Your task to perform on an android device: open the mobile data screen to see how much data has been used Image 0: 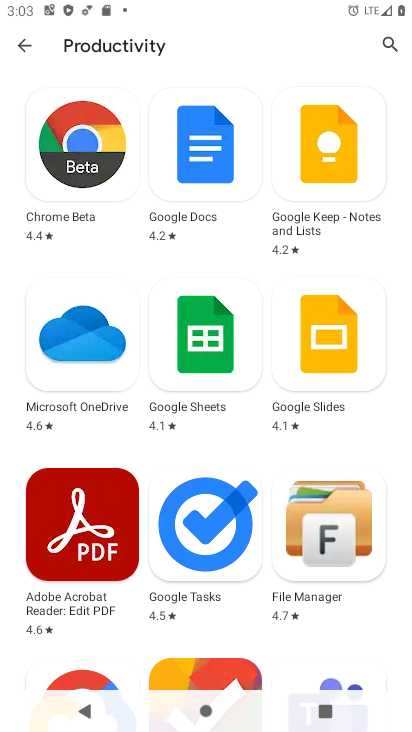
Step 0: press back button
Your task to perform on an android device: open the mobile data screen to see how much data has been used Image 1: 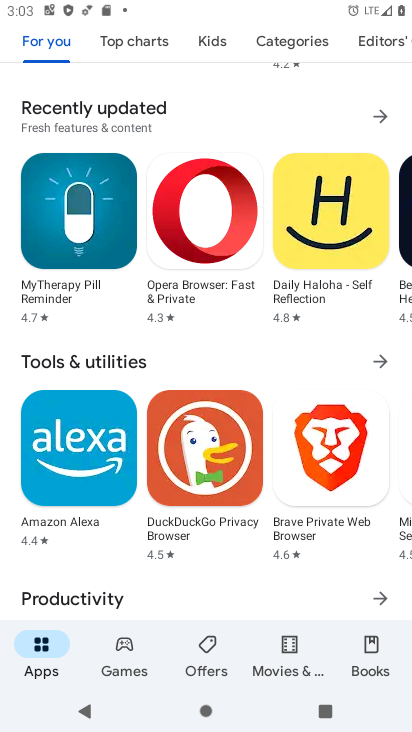
Step 1: press back button
Your task to perform on an android device: open the mobile data screen to see how much data has been used Image 2: 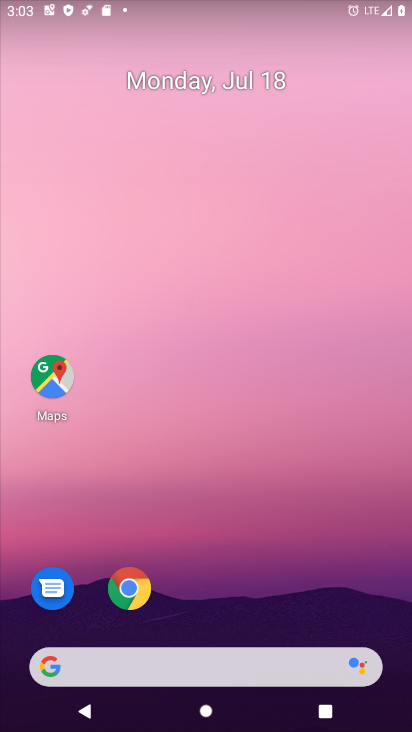
Step 2: drag from (234, 446) to (298, 0)
Your task to perform on an android device: open the mobile data screen to see how much data has been used Image 3: 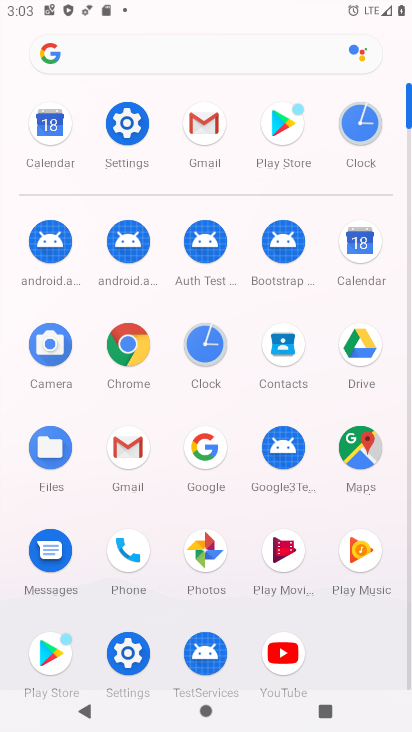
Step 3: click (120, 122)
Your task to perform on an android device: open the mobile data screen to see how much data has been used Image 4: 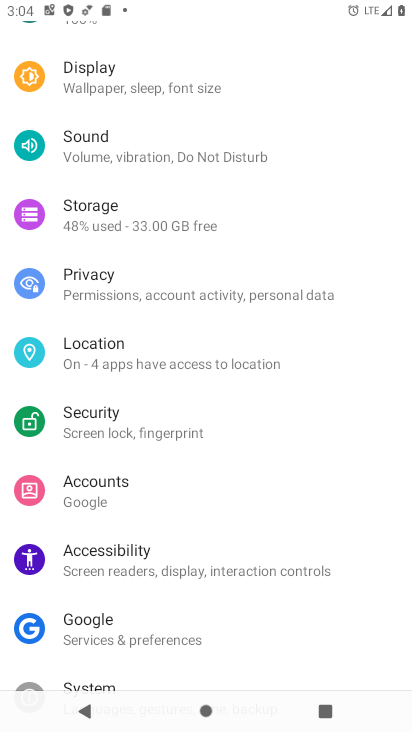
Step 4: drag from (144, 170) to (145, 724)
Your task to perform on an android device: open the mobile data screen to see how much data has been used Image 5: 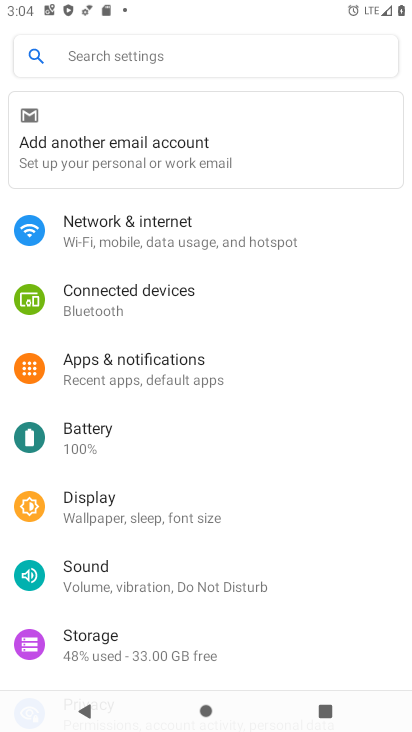
Step 5: click (141, 227)
Your task to perform on an android device: open the mobile data screen to see how much data has been used Image 6: 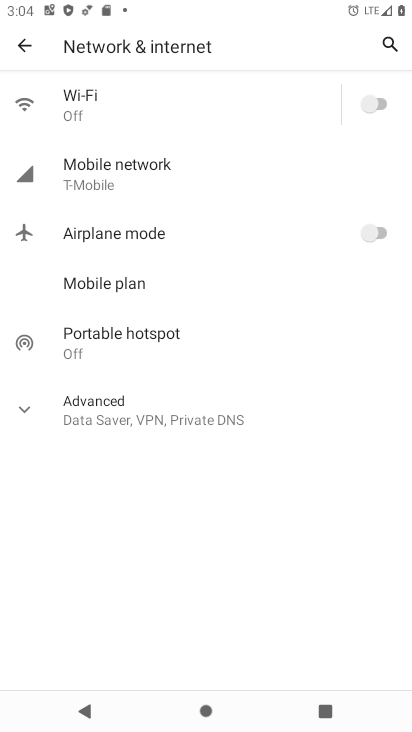
Step 6: click (95, 417)
Your task to perform on an android device: open the mobile data screen to see how much data has been used Image 7: 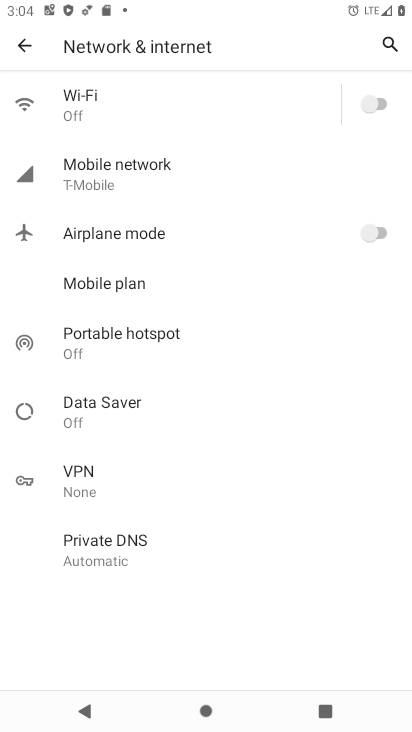
Step 7: click (135, 166)
Your task to perform on an android device: open the mobile data screen to see how much data has been used Image 8: 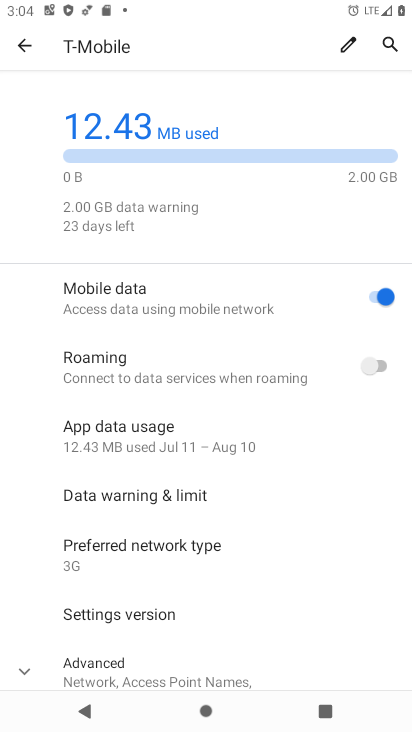
Step 8: click (119, 435)
Your task to perform on an android device: open the mobile data screen to see how much data has been used Image 9: 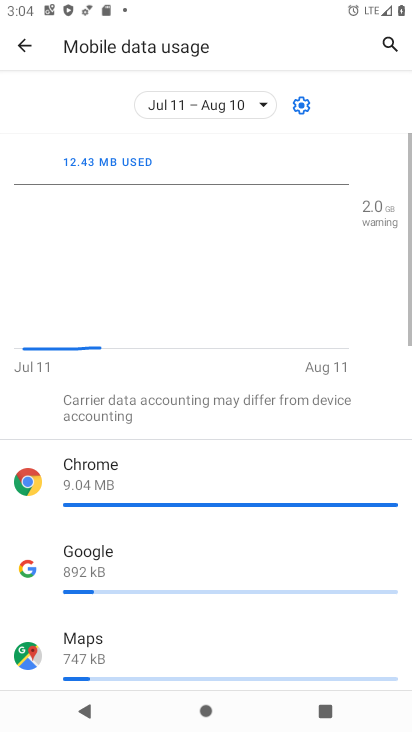
Step 9: task complete